Your task to perform on an android device: Open privacy settings Image 0: 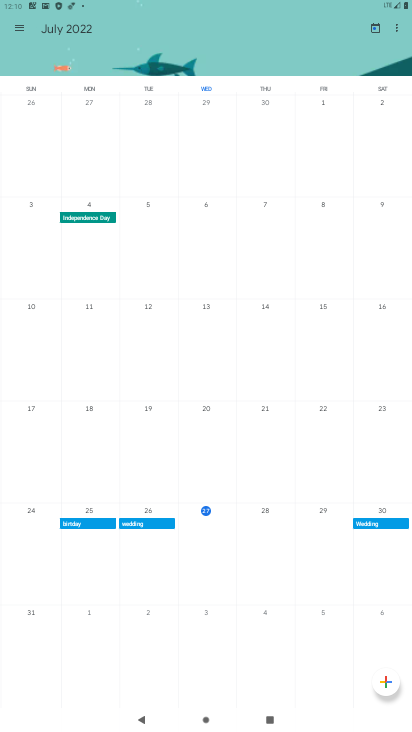
Step 0: press home button
Your task to perform on an android device: Open privacy settings Image 1: 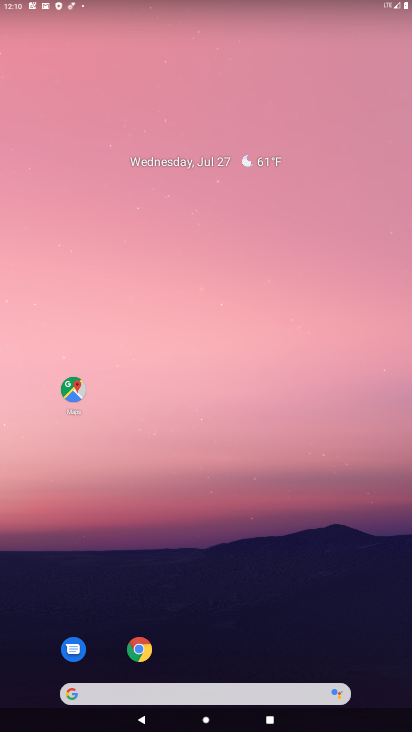
Step 1: drag from (234, 637) to (237, 333)
Your task to perform on an android device: Open privacy settings Image 2: 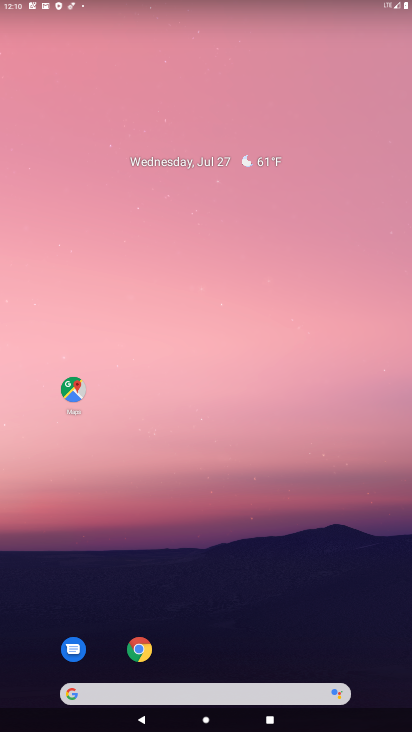
Step 2: drag from (187, 697) to (155, 61)
Your task to perform on an android device: Open privacy settings Image 3: 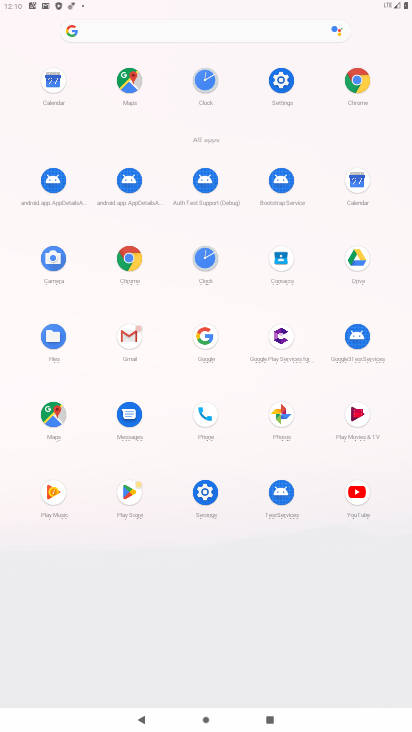
Step 3: click (283, 77)
Your task to perform on an android device: Open privacy settings Image 4: 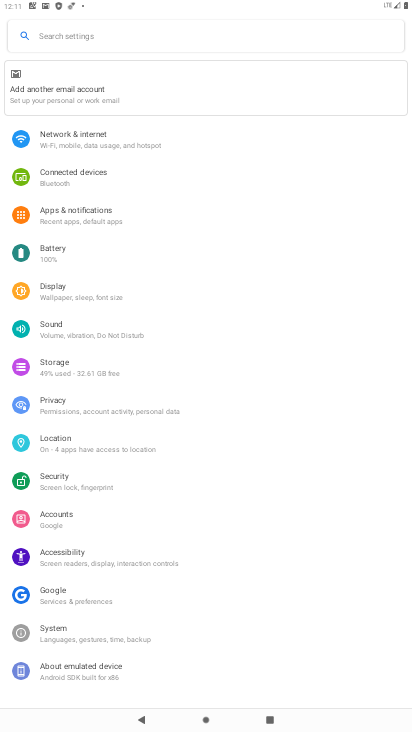
Step 4: click (67, 406)
Your task to perform on an android device: Open privacy settings Image 5: 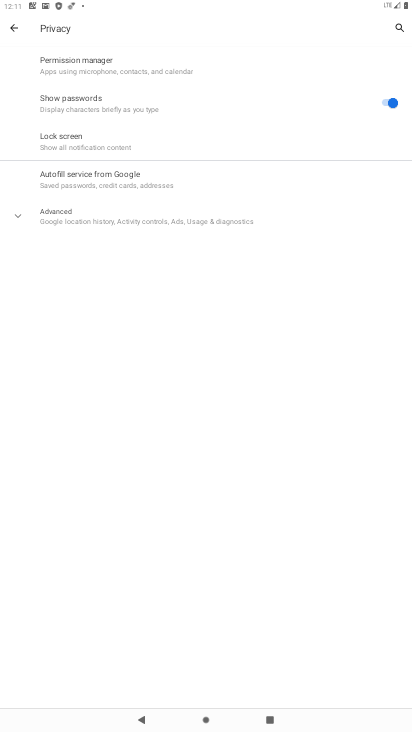
Step 5: click (39, 215)
Your task to perform on an android device: Open privacy settings Image 6: 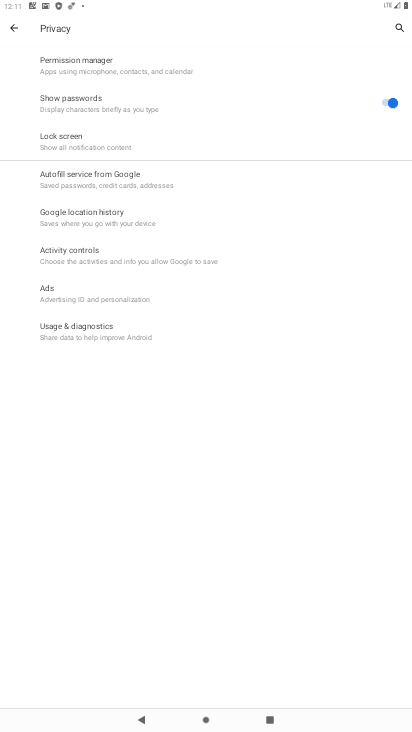
Step 6: task complete